Your task to perform on an android device: Open Google Chrome and click the shortcut for Amazon.com Image 0: 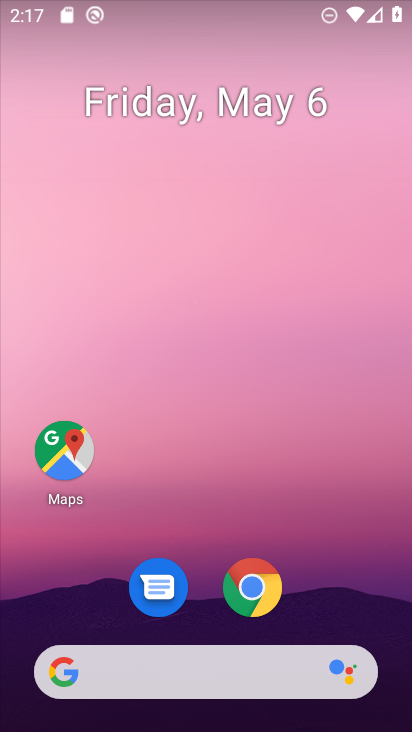
Step 0: click (265, 577)
Your task to perform on an android device: Open Google Chrome and click the shortcut for Amazon.com Image 1: 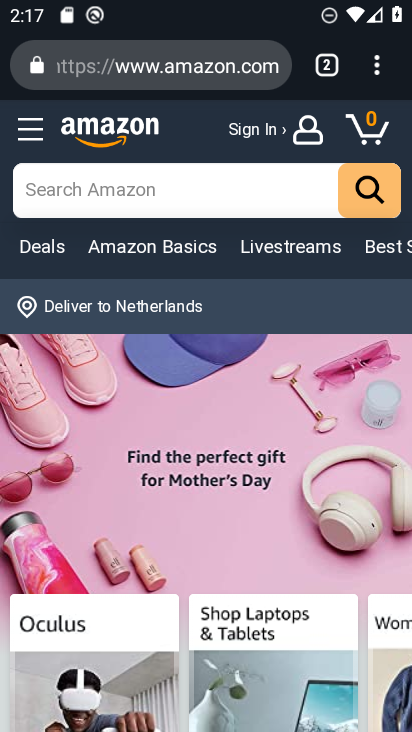
Step 1: drag from (379, 71) to (231, 209)
Your task to perform on an android device: Open Google Chrome and click the shortcut for Amazon.com Image 2: 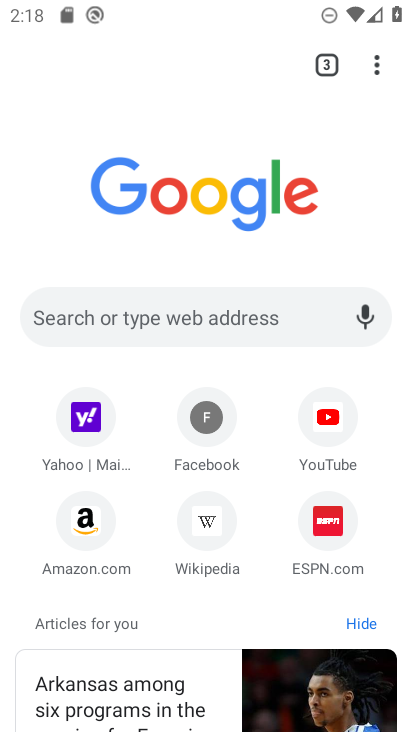
Step 2: click (88, 505)
Your task to perform on an android device: Open Google Chrome and click the shortcut for Amazon.com Image 3: 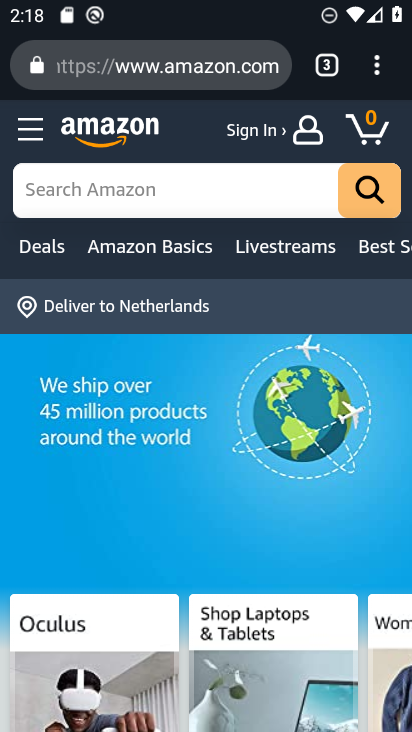
Step 3: task complete